Your task to perform on an android device: Search for "razer huntsman" on walmart, select the first entry, and add it to the cart. Image 0: 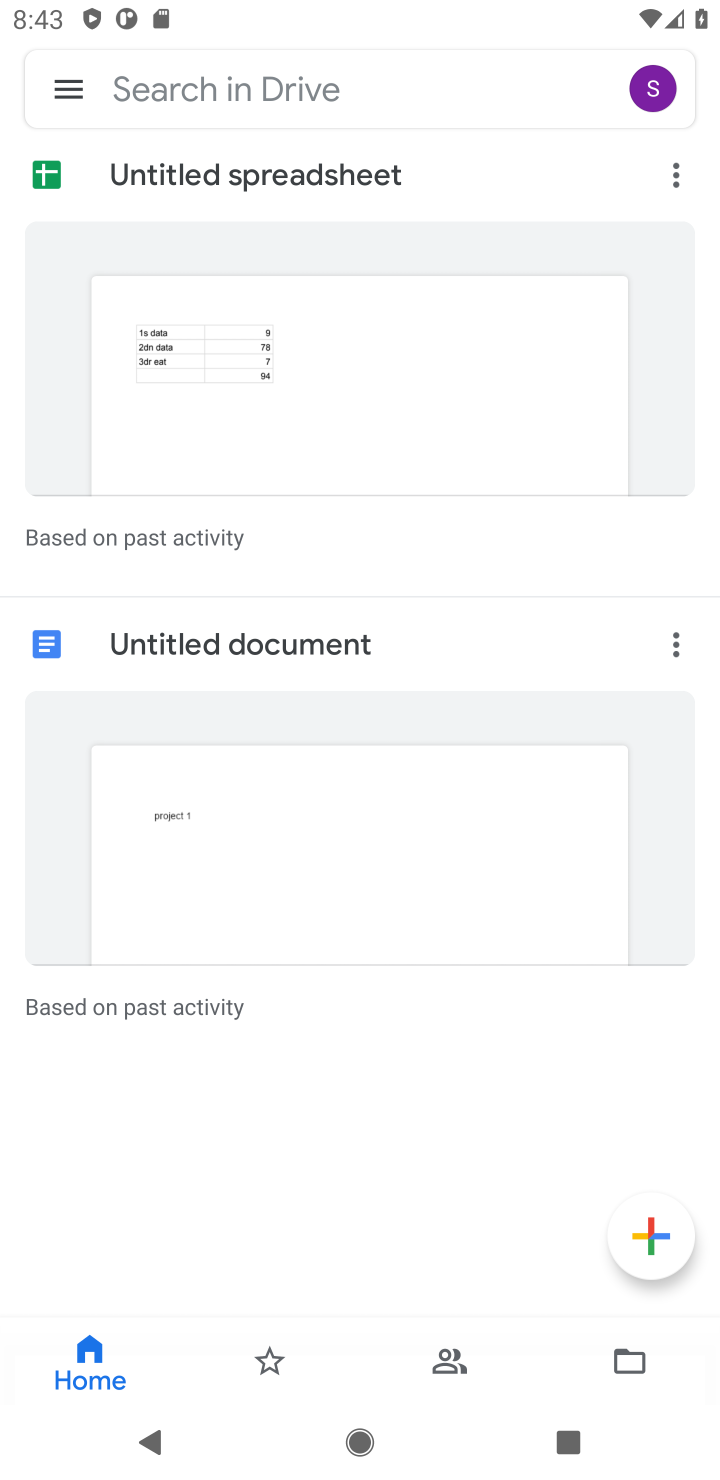
Step 0: press home button
Your task to perform on an android device: Search for "razer huntsman" on walmart, select the first entry, and add it to the cart. Image 1: 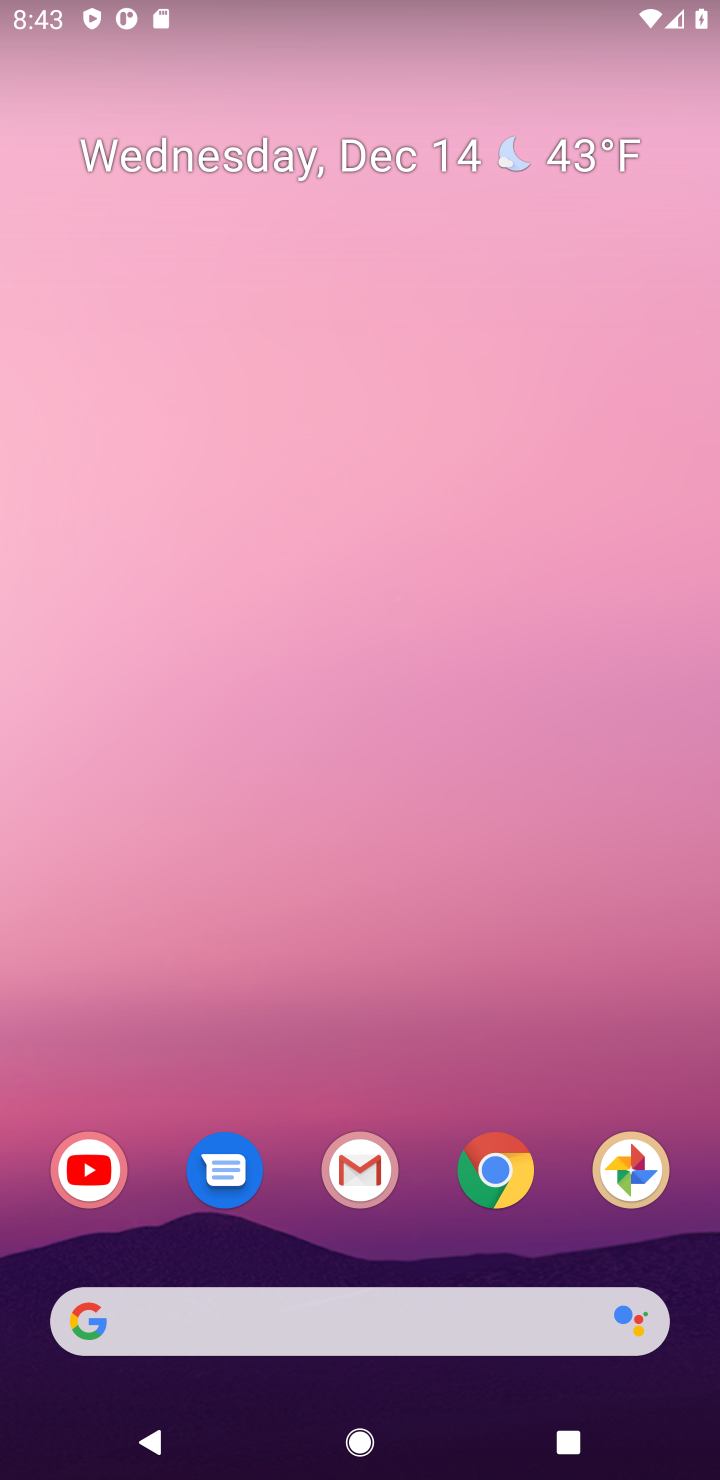
Step 1: click (497, 1173)
Your task to perform on an android device: Search for "razer huntsman" on walmart, select the first entry, and add it to the cart. Image 2: 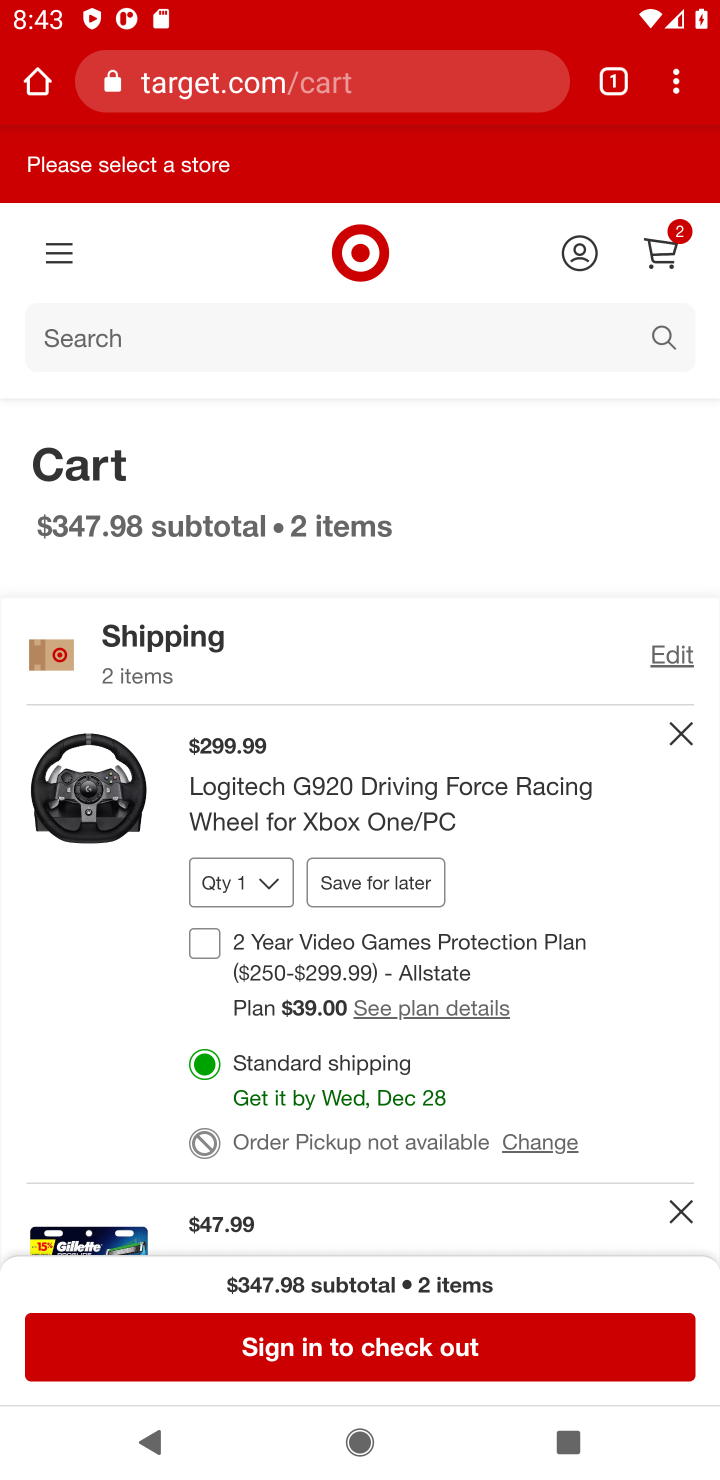
Step 2: click (377, 85)
Your task to perform on an android device: Search for "razer huntsman" on walmart, select the first entry, and add it to the cart. Image 3: 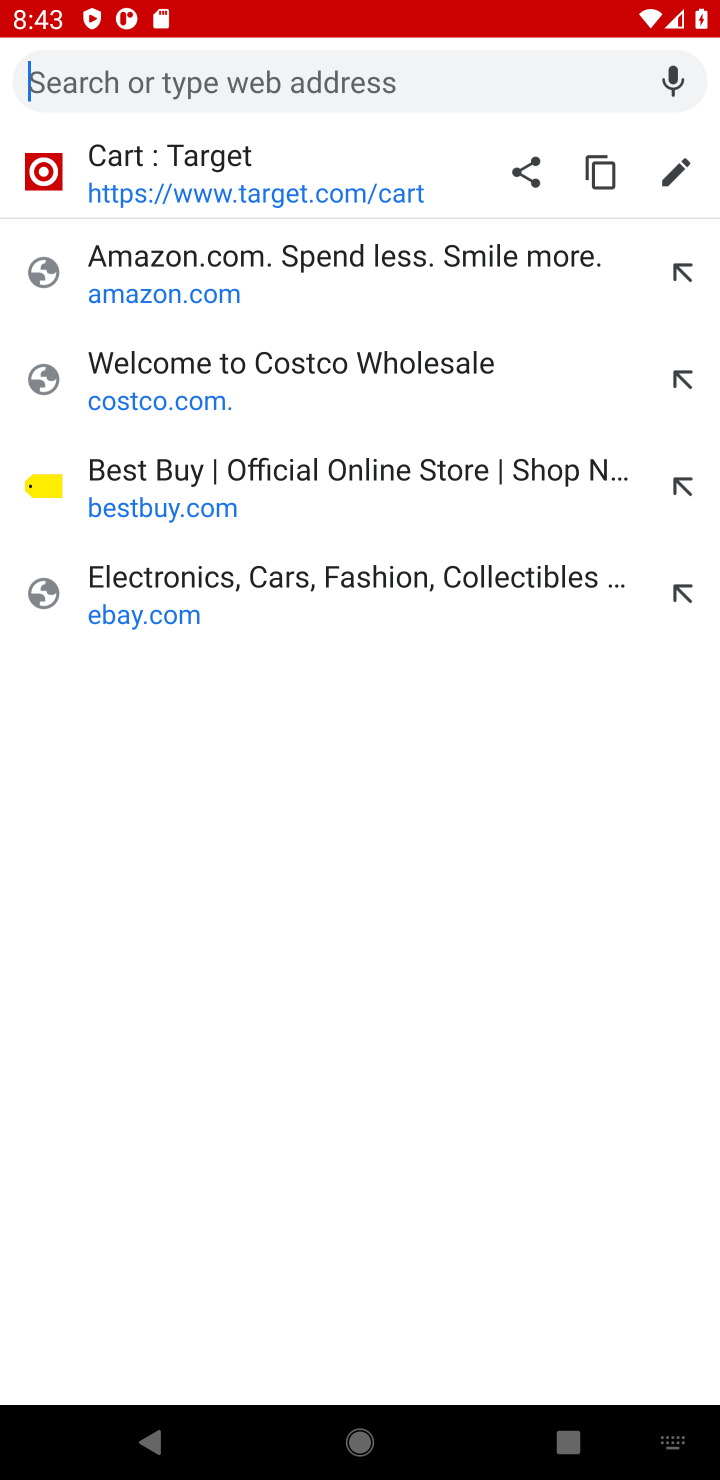
Step 3: type "WALMART"
Your task to perform on an android device: Search for "razer huntsman" on walmart, select the first entry, and add it to the cart. Image 4: 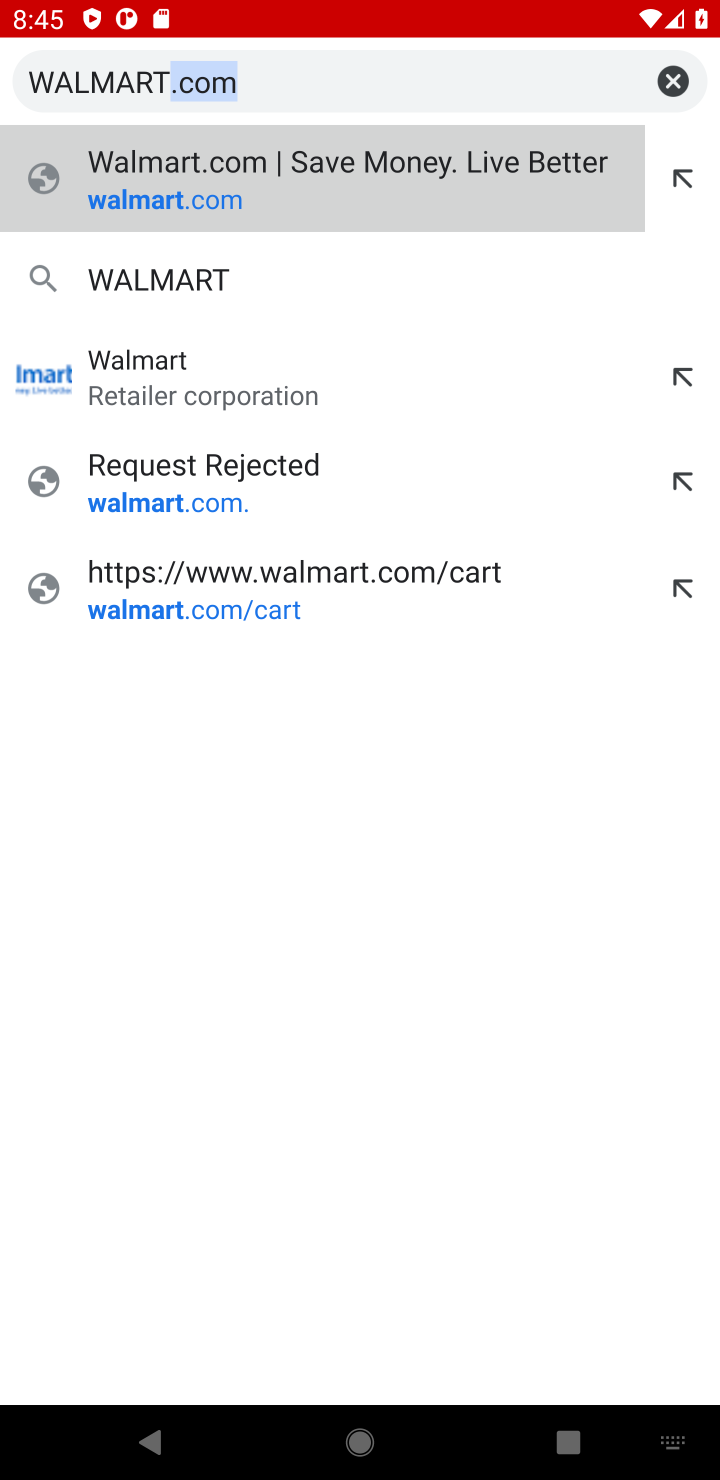
Step 4: click (412, 183)
Your task to perform on an android device: Search for "razer huntsman" on walmart, select the first entry, and add it to the cart. Image 5: 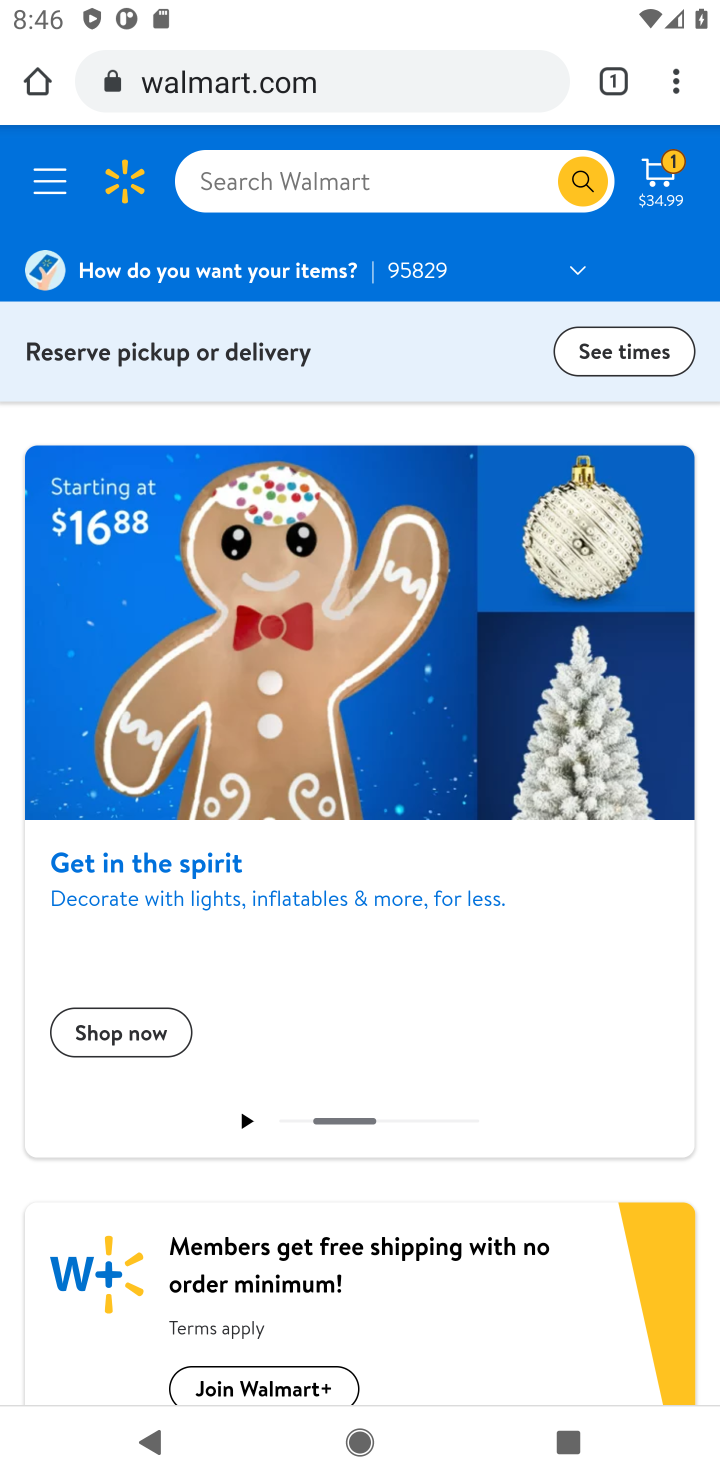
Step 5: click (298, 184)
Your task to perform on an android device: Search for "razer huntsman" on walmart, select the first entry, and add it to the cart. Image 6: 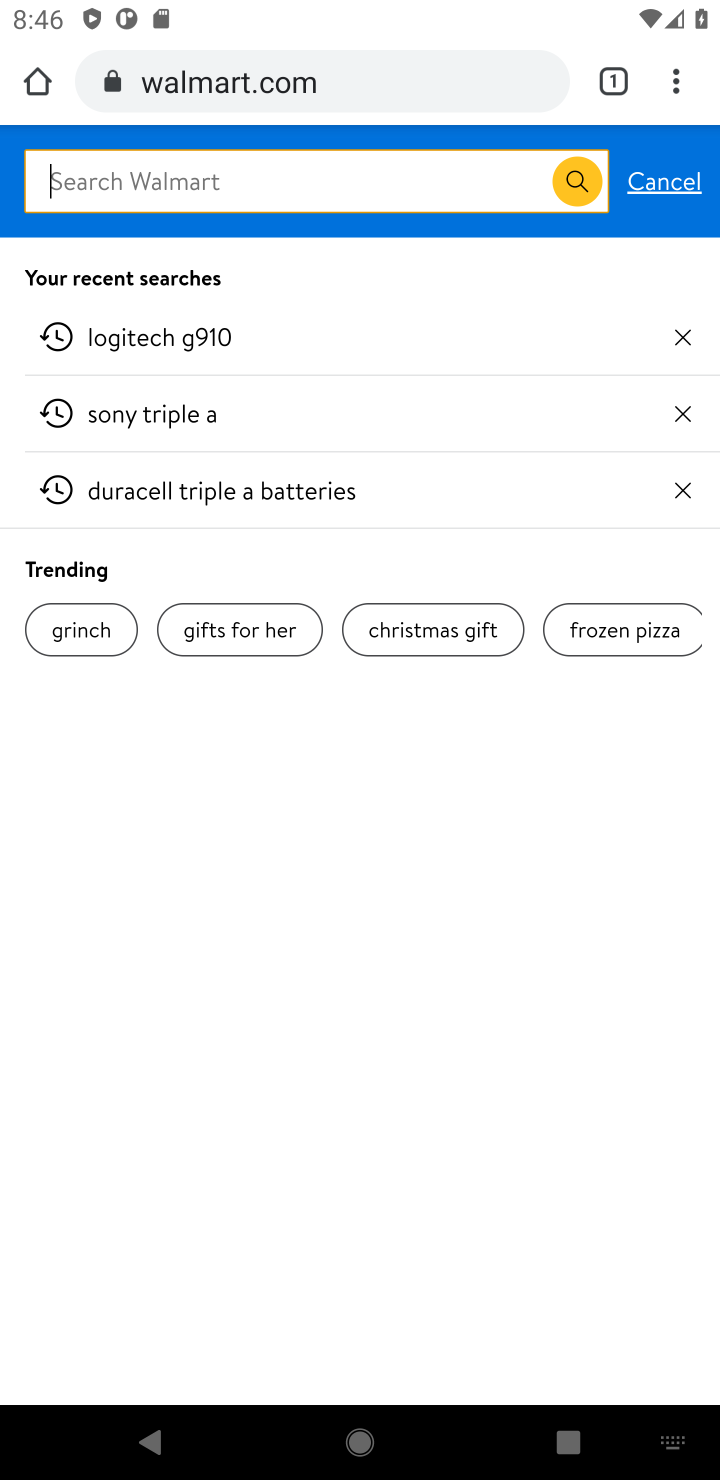
Step 6: type "RAZER HUNTSMAN"
Your task to perform on an android device: Search for "razer huntsman" on walmart, select the first entry, and add it to the cart. Image 7: 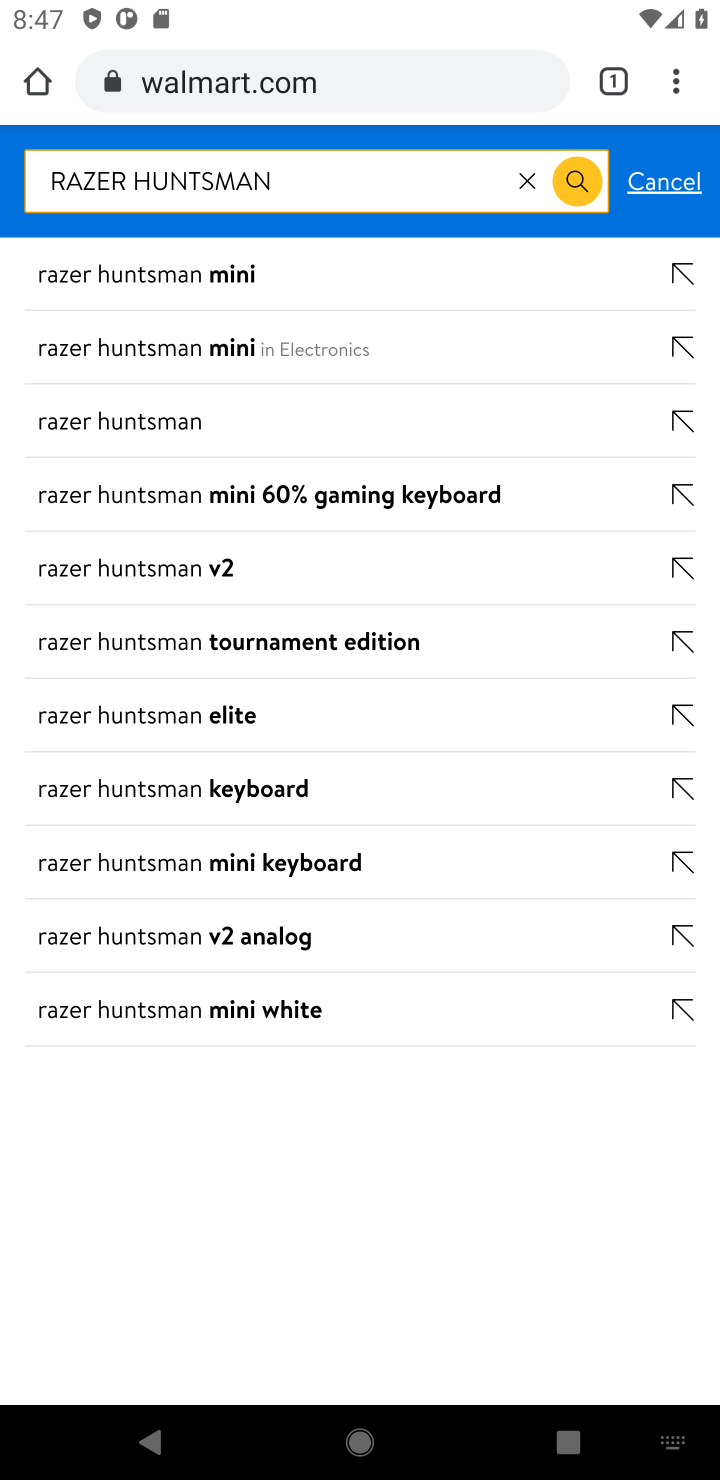
Step 7: click (153, 283)
Your task to perform on an android device: Search for "razer huntsman" on walmart, select the first entry, and add it to the cart. Image 8: 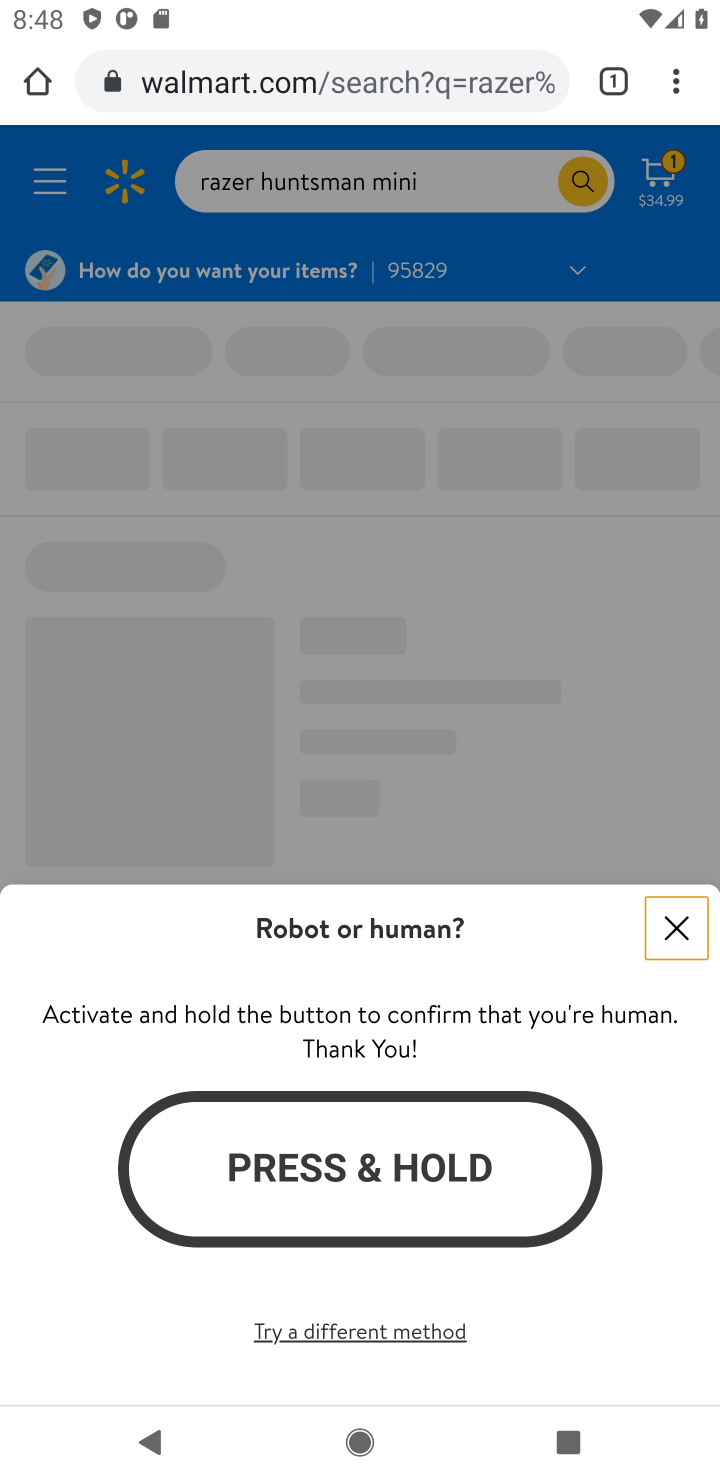
Step 8: task complete